Your task to perform on an android device: add a contact Image 0: 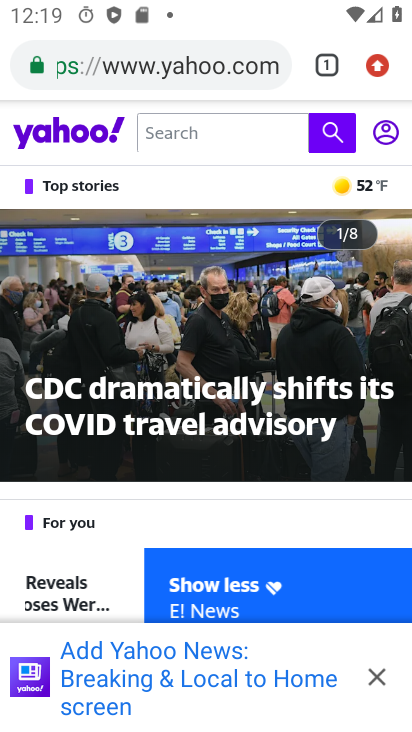
Step 0: press home button
Your task to perform on an android device: add a contact Image 1: 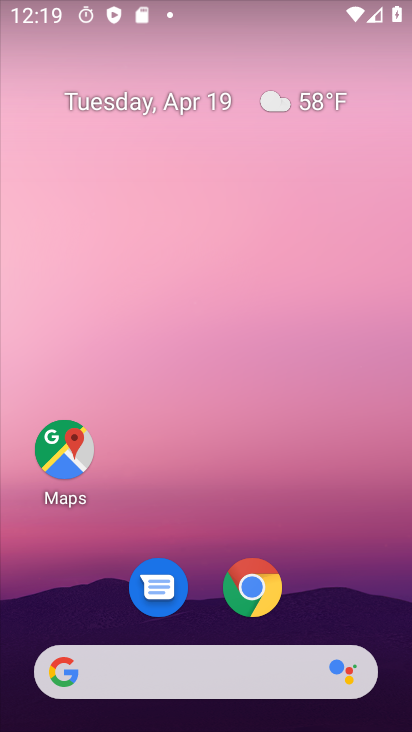
Step 1: drag from (385, 383) to (408, 140)
Your task to perform on an android device: add a contact Image 2: 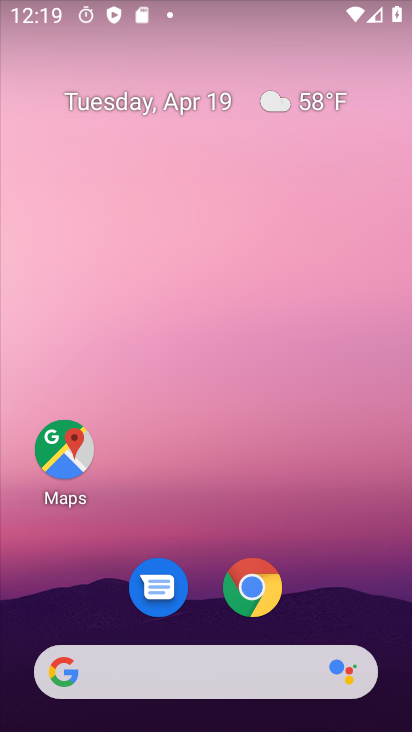
Step 2: drag from (386, 608) to (347, 173)
Your task to perform on an android device: add a contact Image 3: 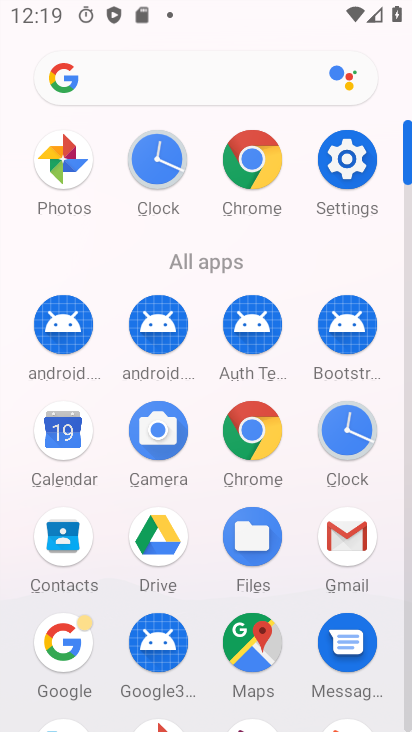
Step 3: click (58, 536)
Your task to perform on an android device: add a contact Image 4: 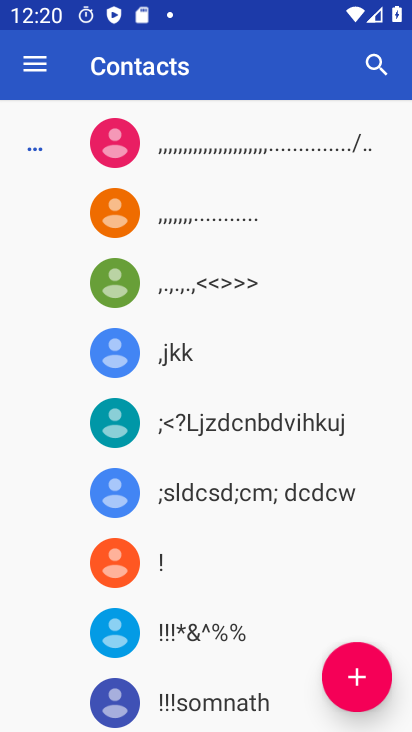
Step 4: click (351, 677)
Your task to perform on an android device: add a contact Image 5: 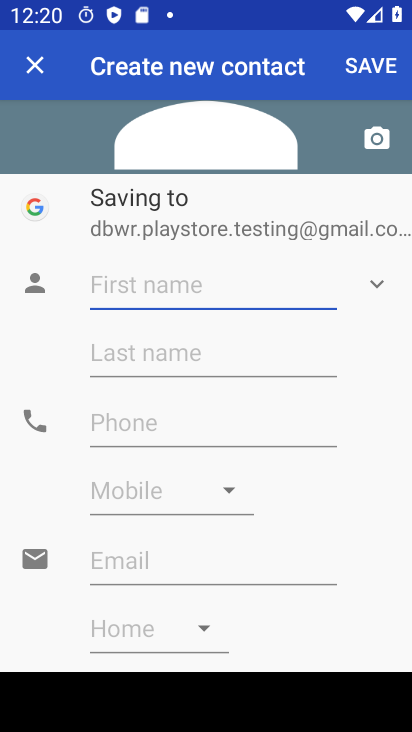
Step 5: type "raju"
Your task to perform on an android device: add a contact Image 6: 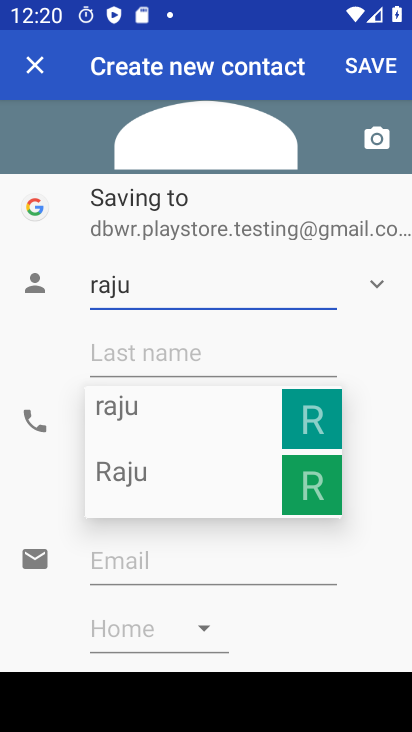
Step 6: click (330, 383)
Your task to perform on an android device: add a contact Image 7: 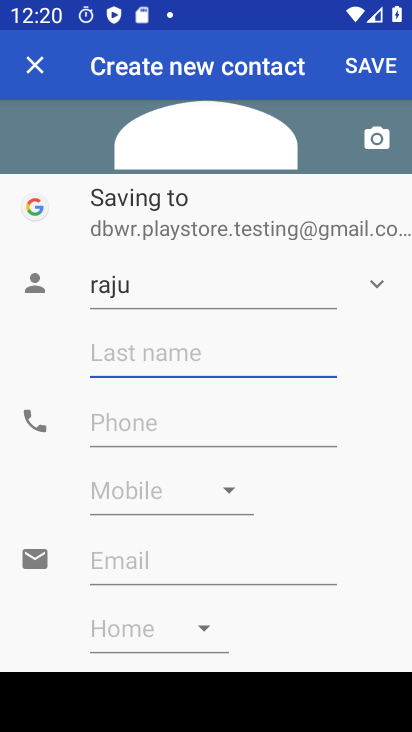
Step 7: click (262, 419)
Your task to perform on an android device: add a contact Image 8: 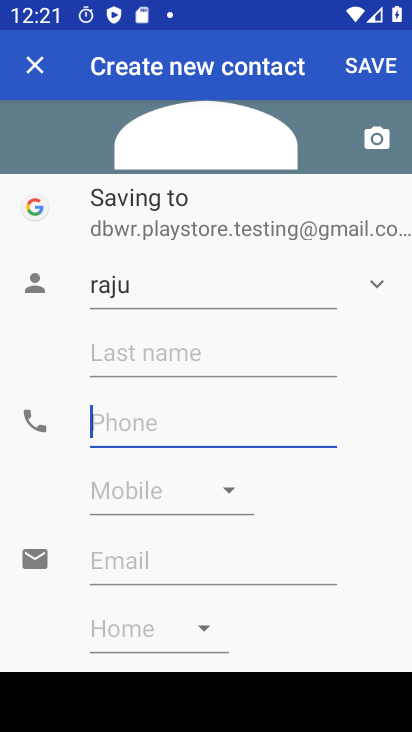
Step 8: type "5968558484"
Your task to perform on an android device: add a contact Image 9: 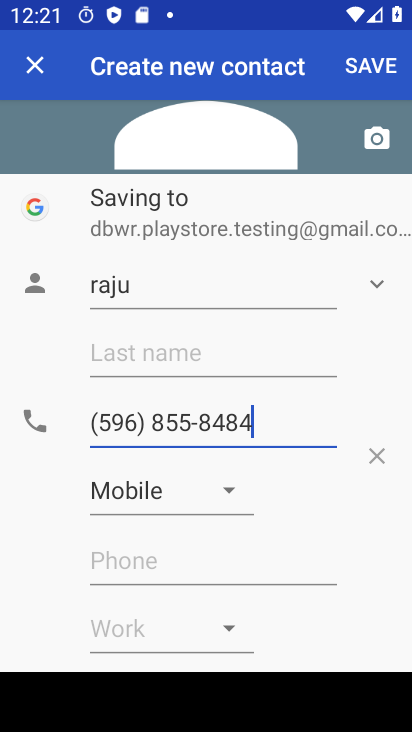
Step 9: click (360, 74)
Your task to perform on an android device: add a contact Image 10: 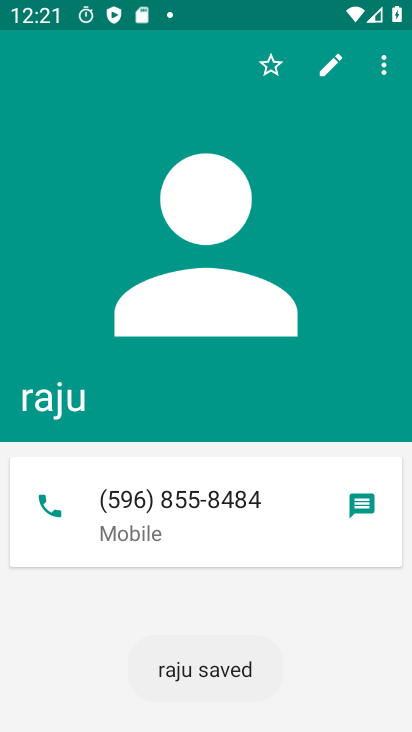
Step 10: task complete